Your task to perform on an android device: empty trash in the gmail app Image 0: 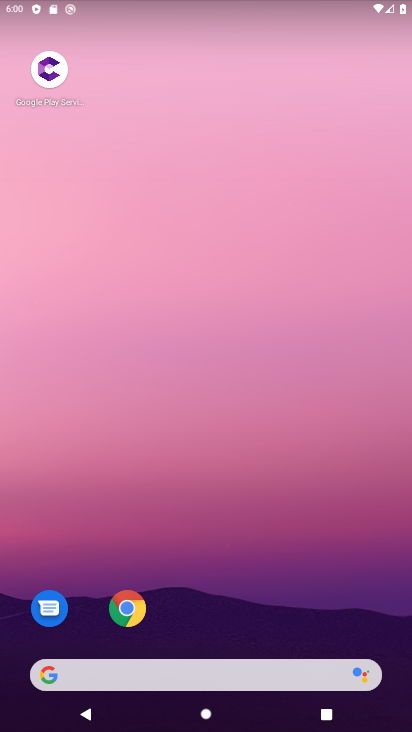
Step 0: drag from (213, 610) to (313, 36)
Your task to perform on an android device: empty trash in the gmail app Image 1: 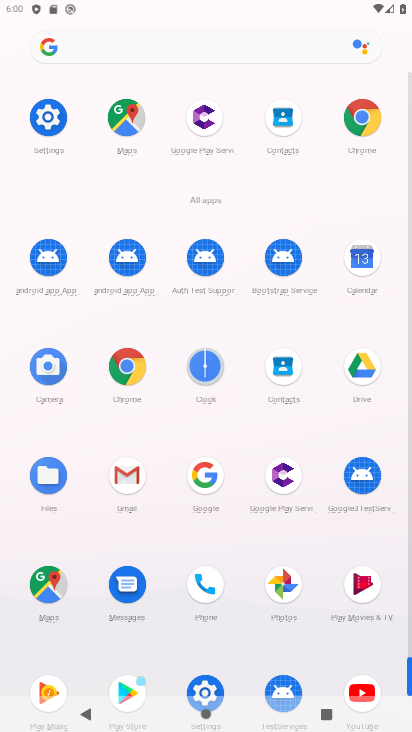
Step 1: click (134, 487)
Your task to perform on an android device: empty trash in the gmail app Image 2: 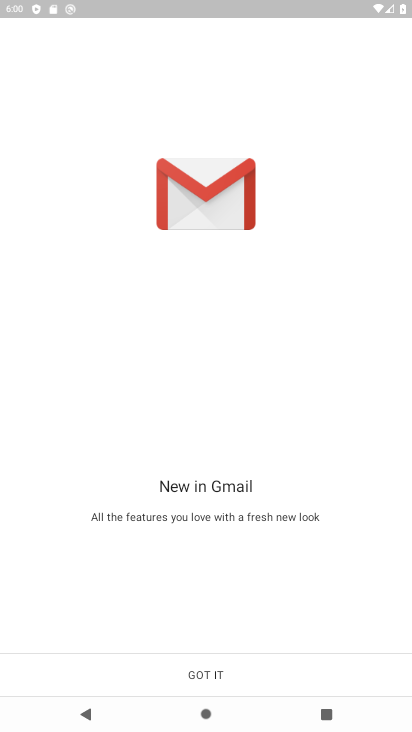
Step 2: click (212, 674)
Your task to perform on an android device: empty trash in the gmail app Image 3: 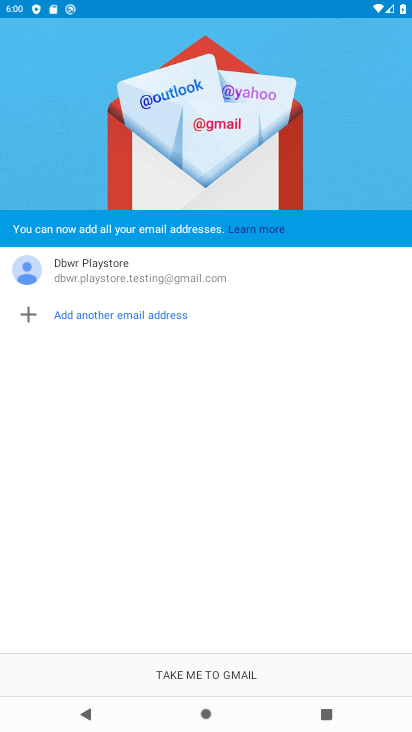
Step 3: click (210, 672)
Your task to perform on an android device: empty trash in the gmail app Image 4: 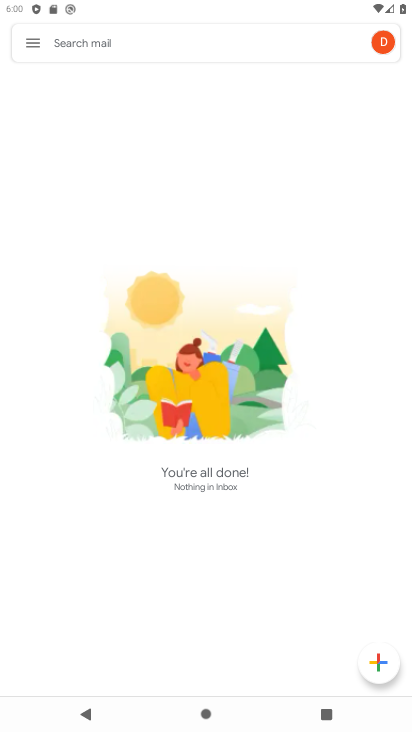
Step 4: click (31, 36)
Your task to perform on an android device: empty trash in the gmail app Image 5: 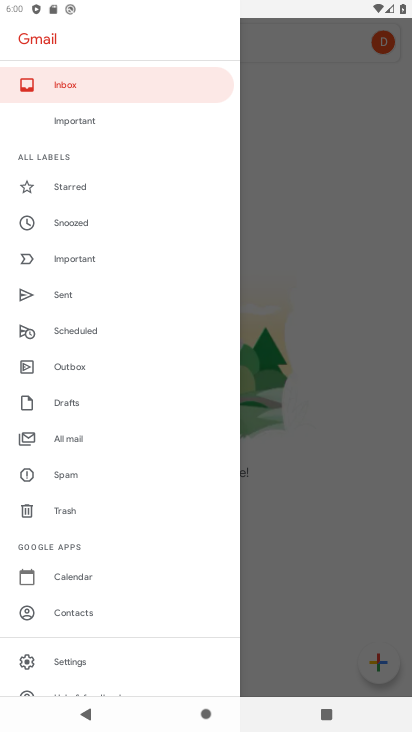
Step 5: click (69, 514)
Your task to perform on an android device: empty trash in the gmail app Image 6: 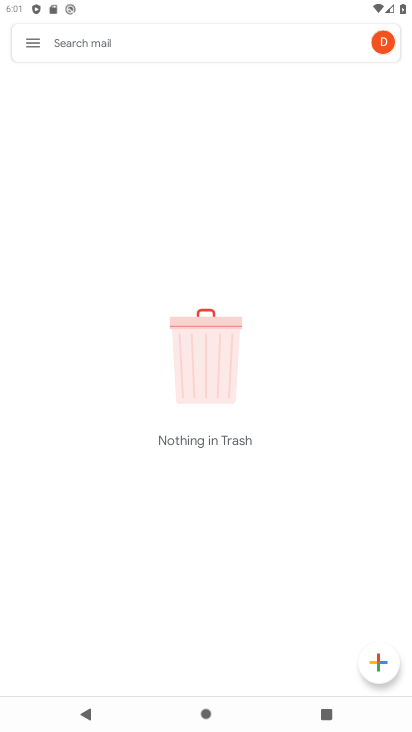
Step 6: task complete